Your task to perform on an android device: open app "Messenger Lite" Image 0: 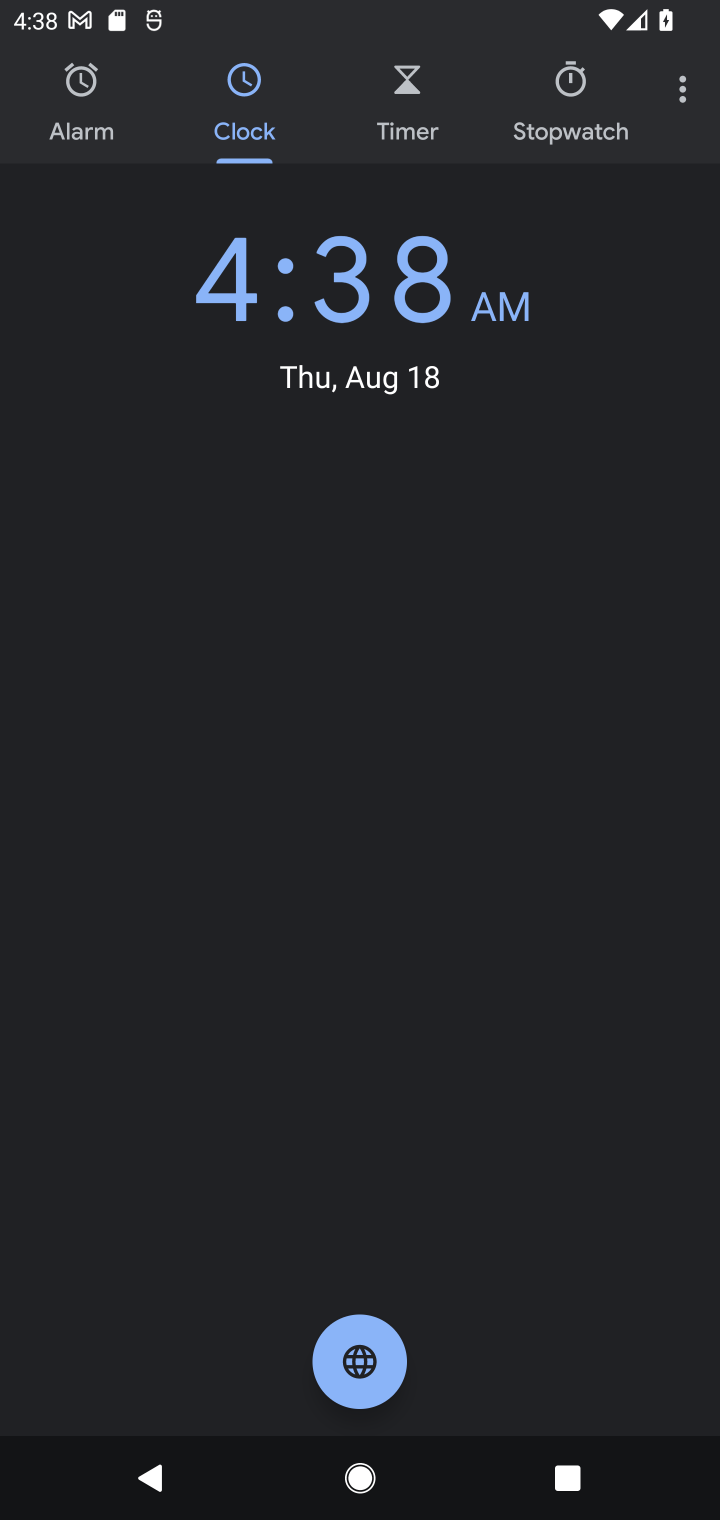
Step 0: press home button
Your task to perform on an android device: open app "Messenger Lite" Image 1: 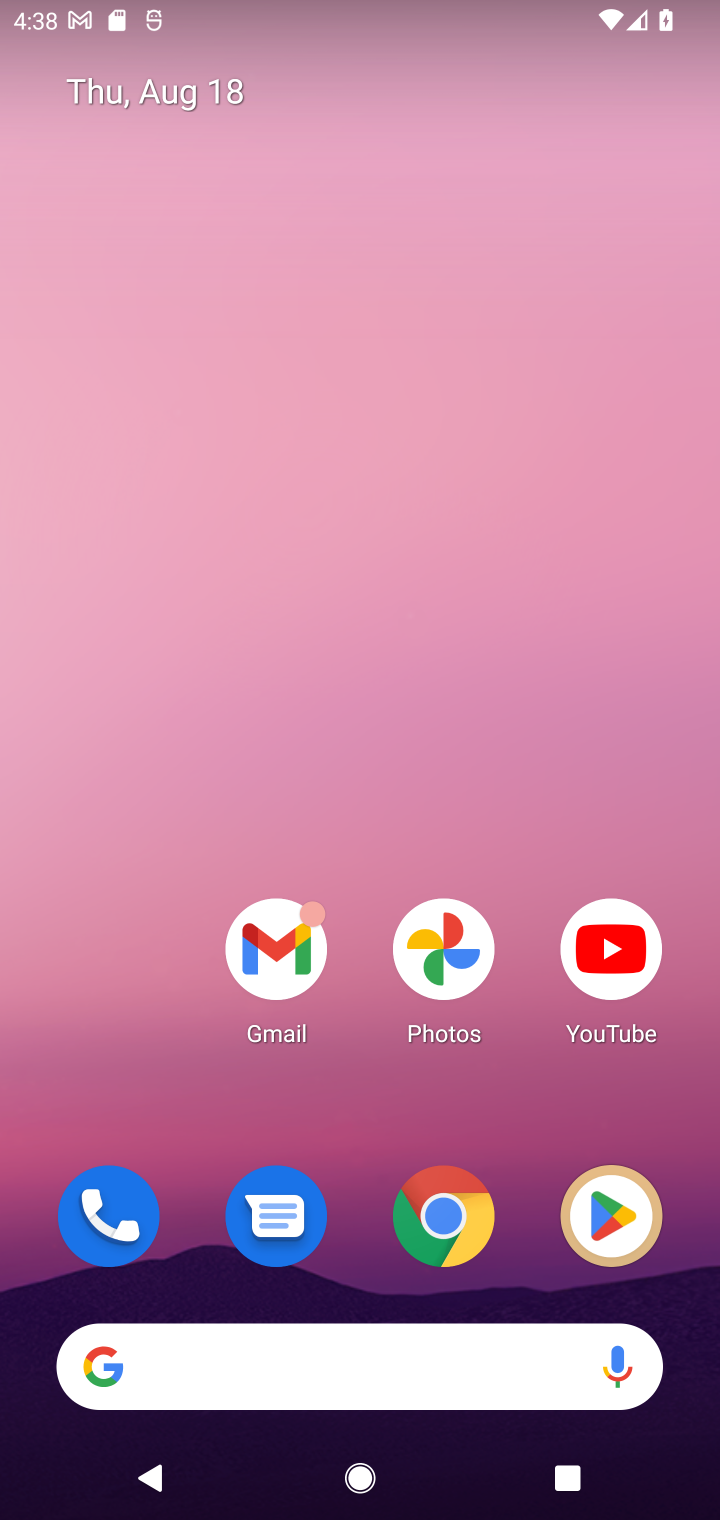
Step 1: drag from (521, 1236) to (472, 1004)
Your task to perform on an android device: open app "Messenger Lite" Image 2: 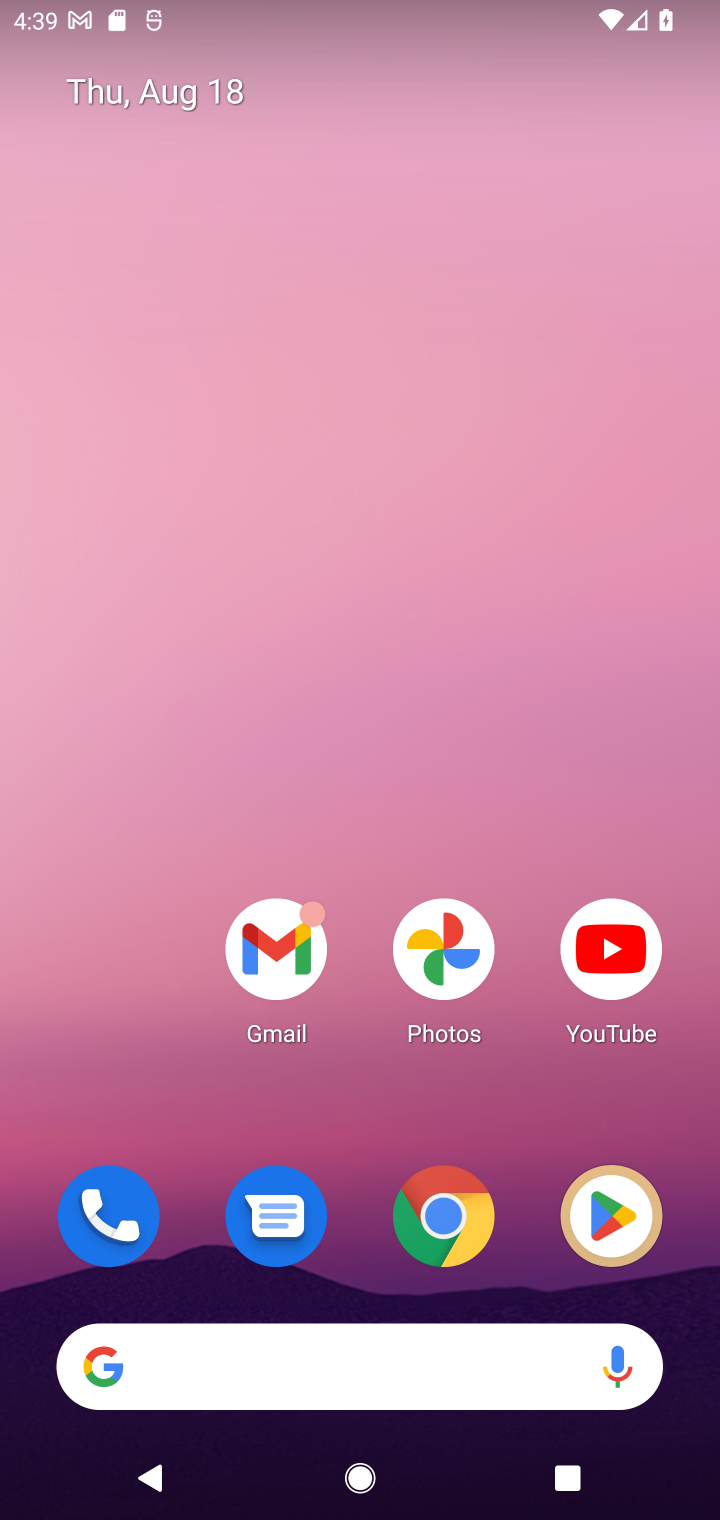
Step 2: click (615, 1217)
Your task to perform on an android device: open app "Messenger Lite" Image 3: 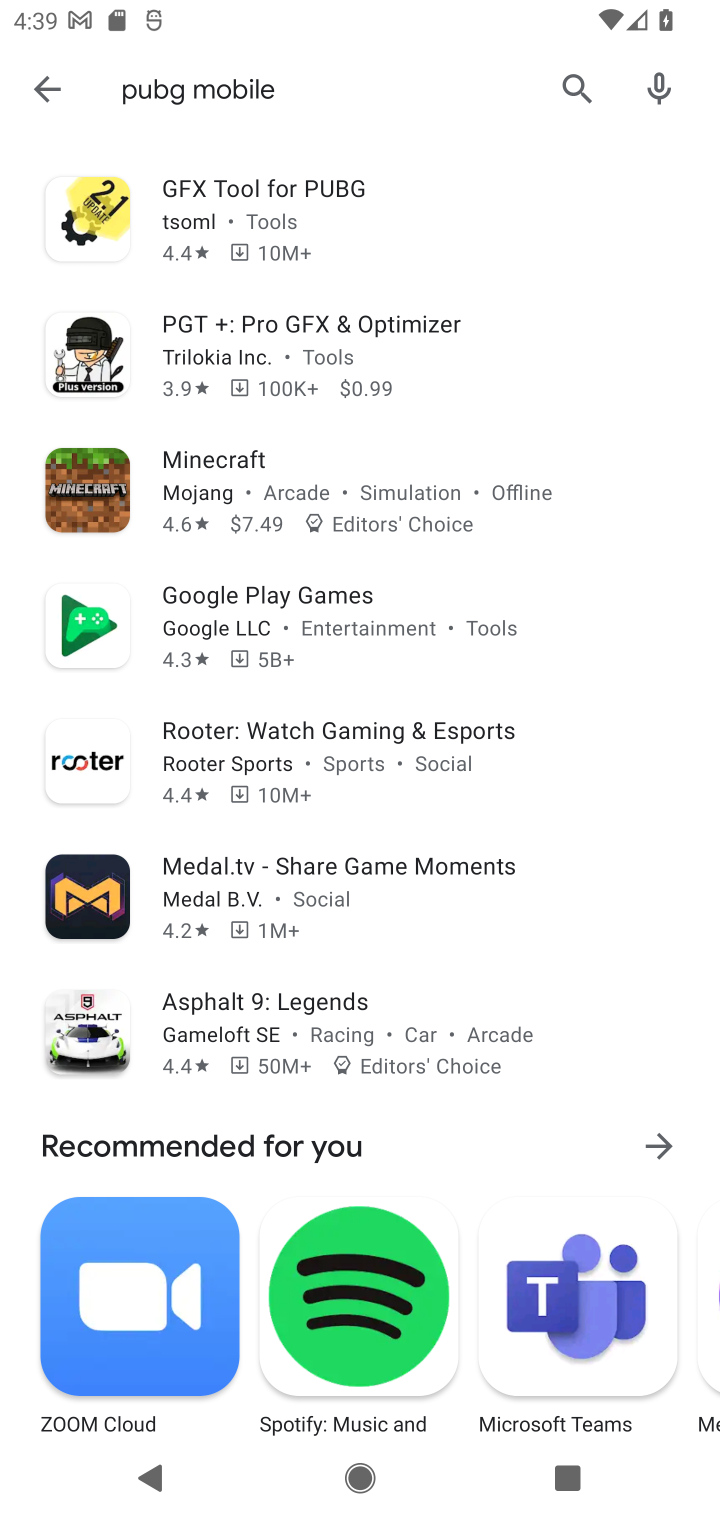
Step 3: click (575, 79)
Your task to perform on an android device: open app "Messenger Lite" Image 4: 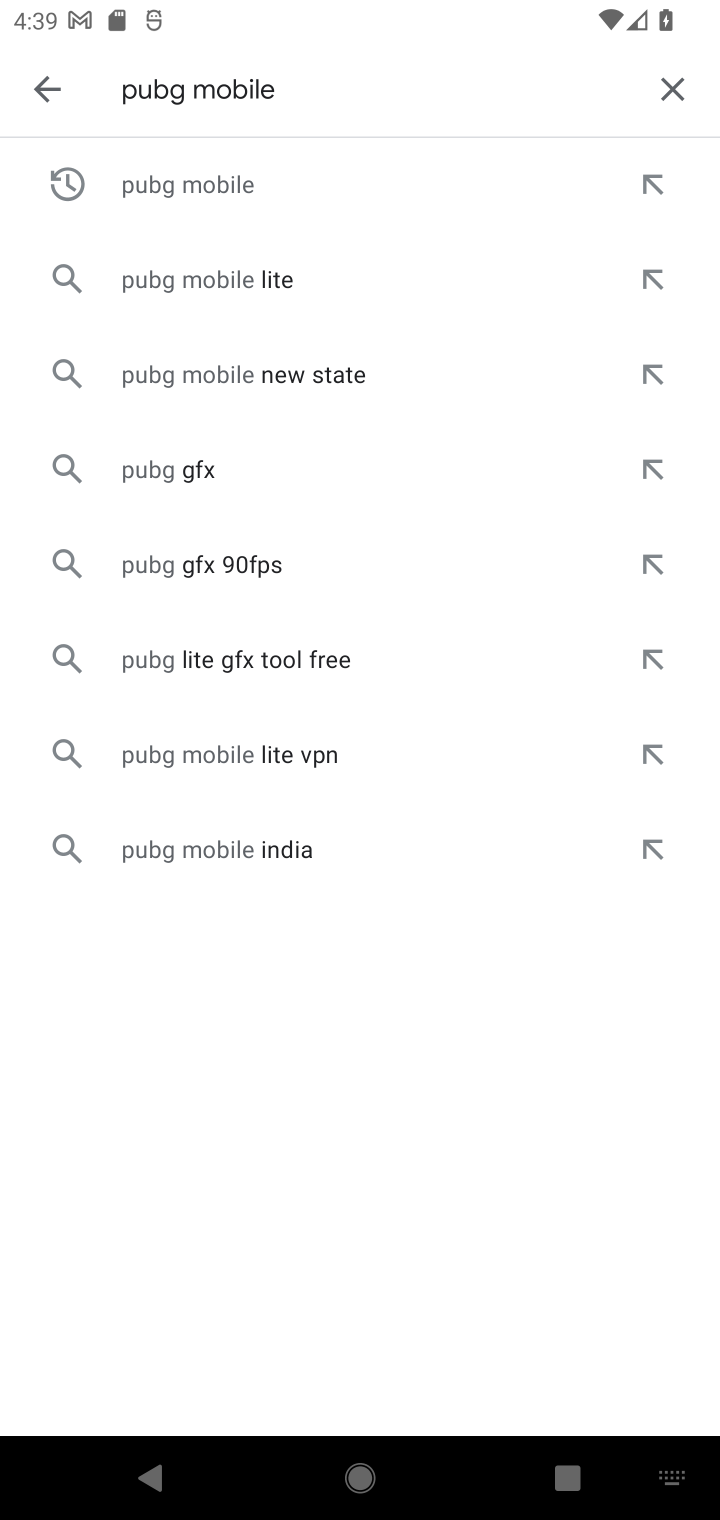
Step 4: click (674, 82)
Your task to perform on an android device: open app "Messenger Lite" Image 5: 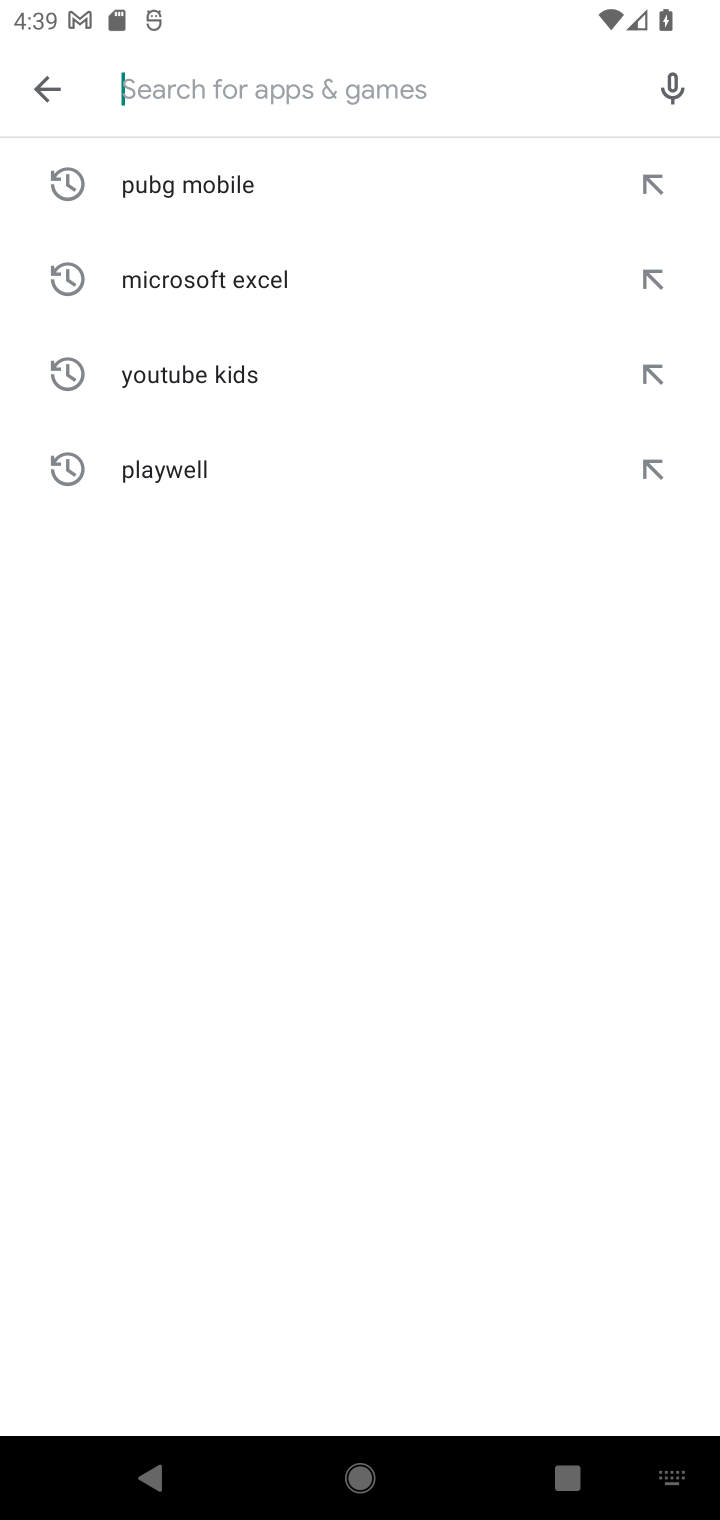
Step 5: type "messenger lite"
Your task to perform on an android device: open app "Messenger Lite" Image 6: 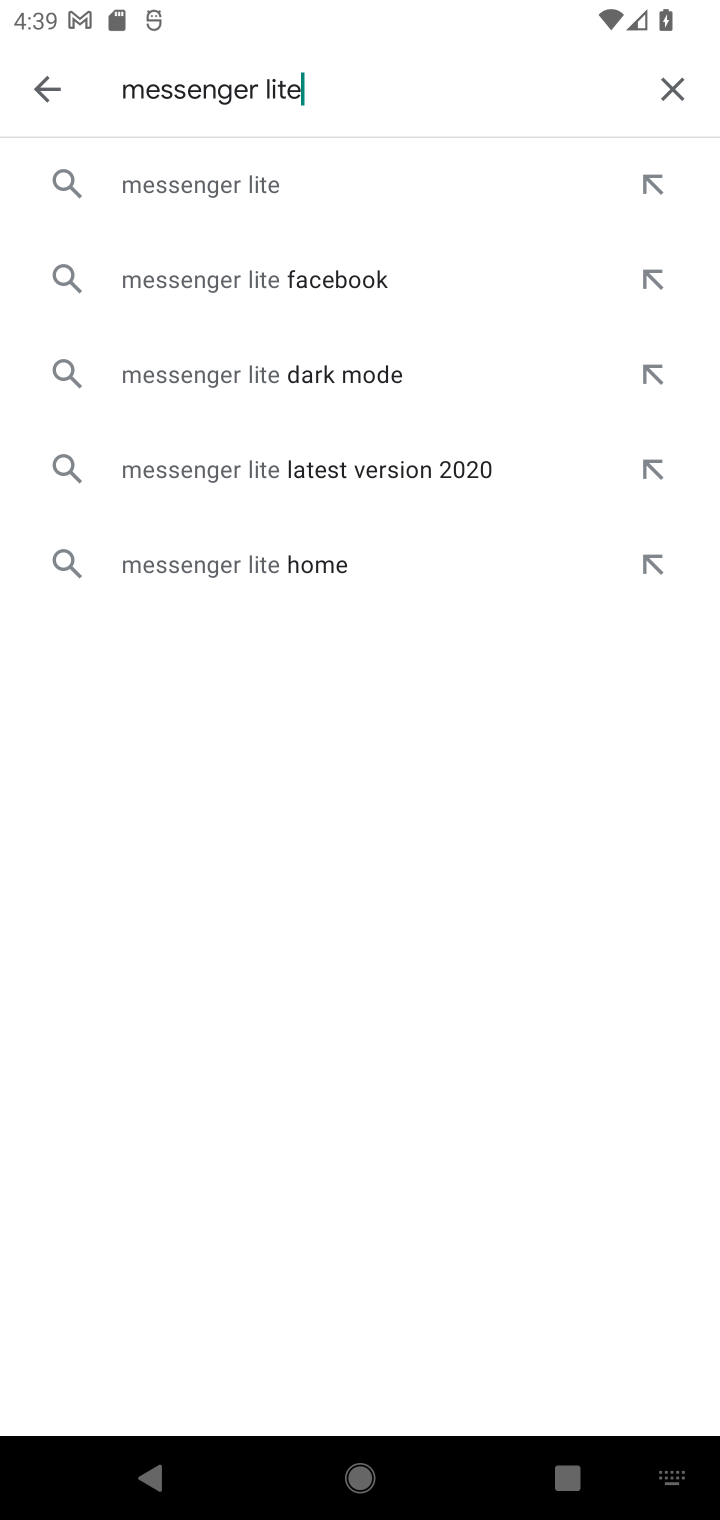
Step 6: click (196, 174)
Your task to perform on an android device: open app "Messenger Lite" Image 7: 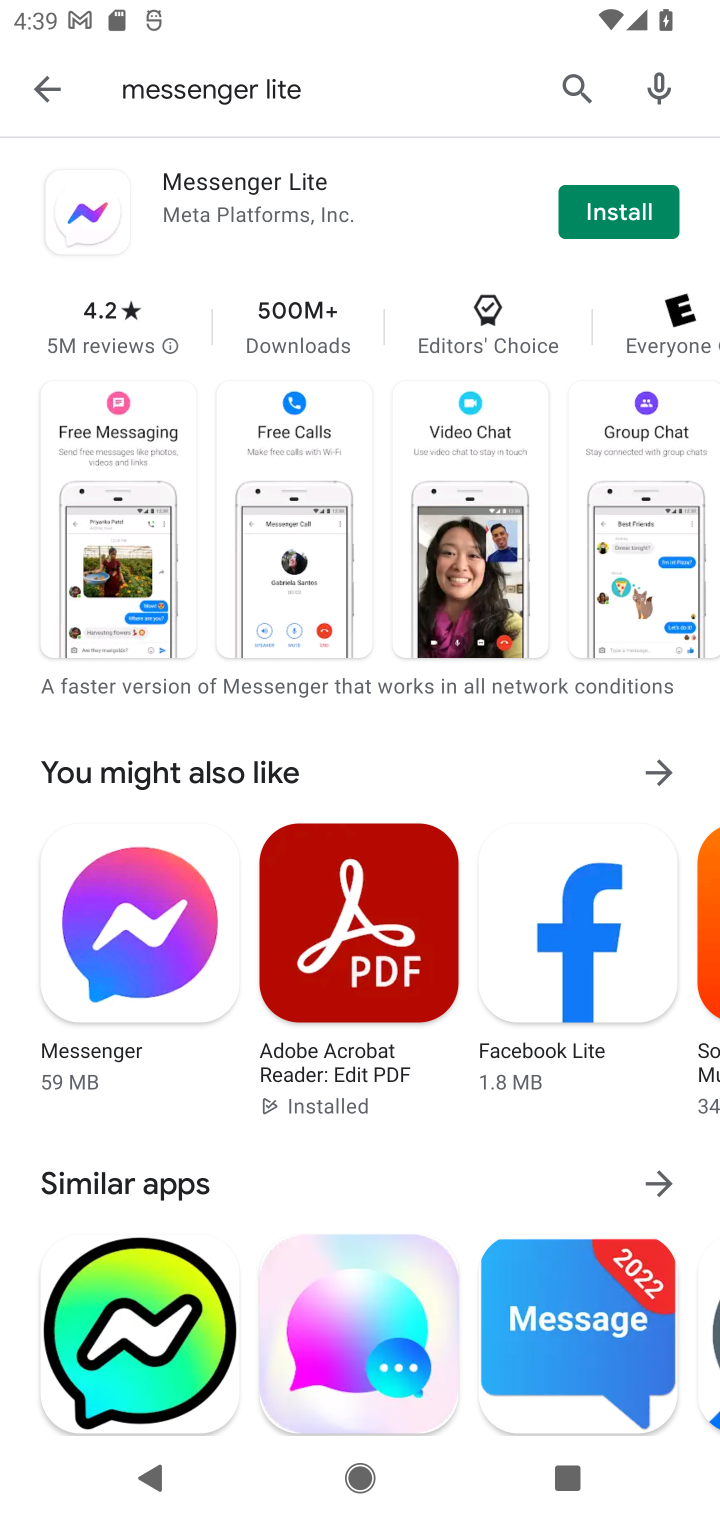
Step 7: task complete